Your task to perform on an android device: Open Google Chrome and click the shortcut for Amazon.com Image 0: 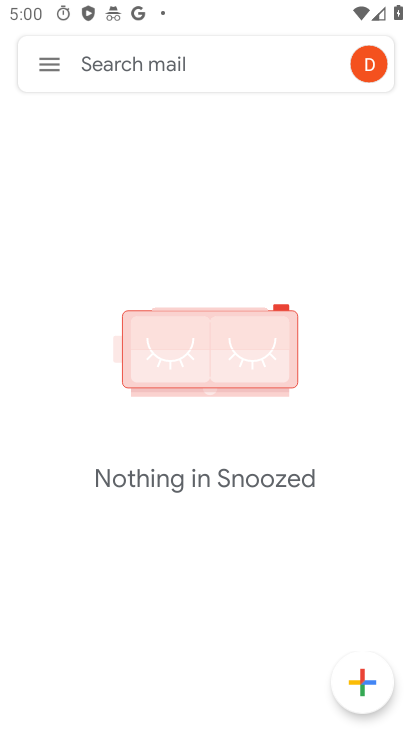
Step 0: press home button
Your task to perform on an android device: Open Google Chrome and click the shortcut for Amazon.com Image 1: 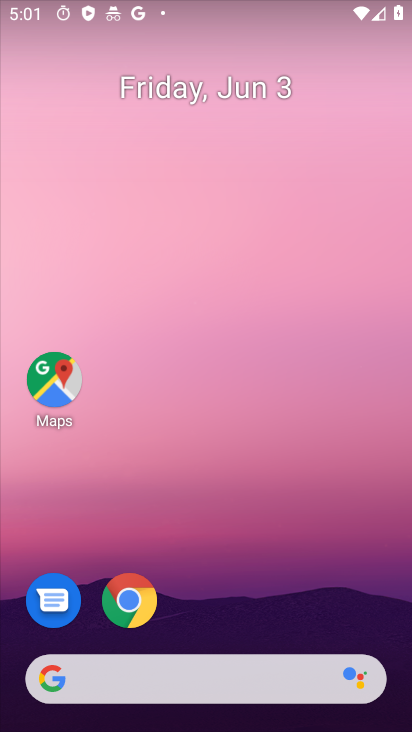
Step 1: click (130, 593)
Your task to perform on an android device: Open Google Chrome and click the shortcut for Amazon.com Image 2: 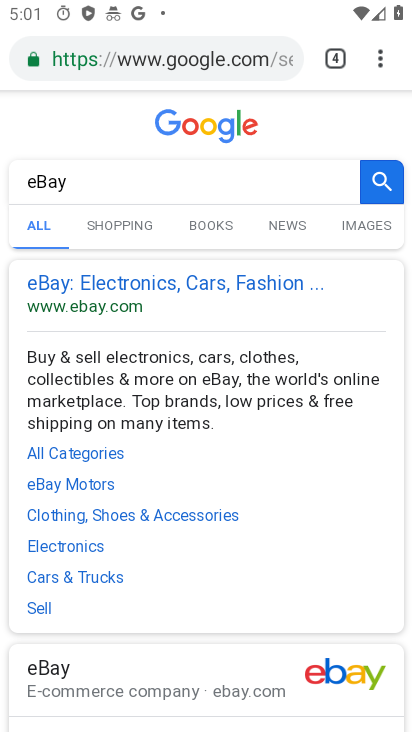
Step 2: click (380, 51)
Your task to perform on an android device: Open Google Chrome and click the shortcut for Amazon.com Image 3: 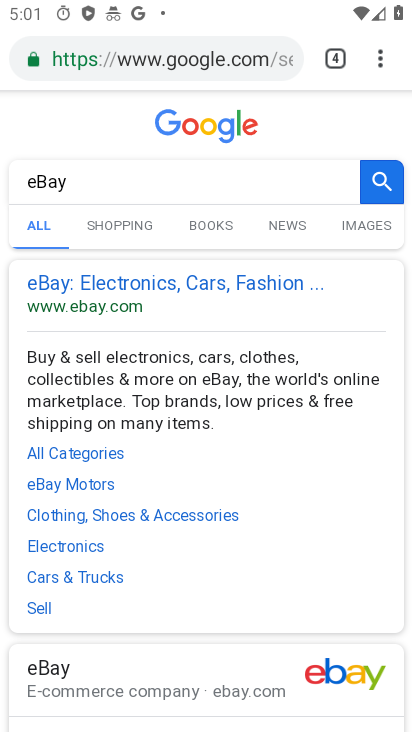
Step 3: click (379, 58)
Your task to perform on an android device: Open Google Chrome and click the shortcut for Amazon.com Image 4: 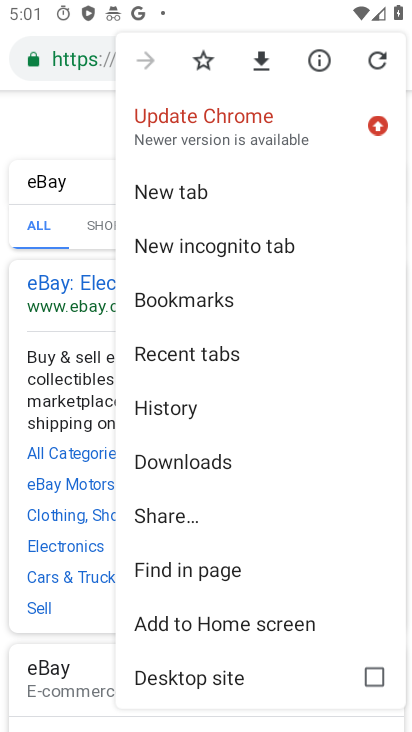
Step 4: click (177, 186)
Your task to perform on an android device: Open Google Chrome and click the shortcut for Amazon.com Image 5: 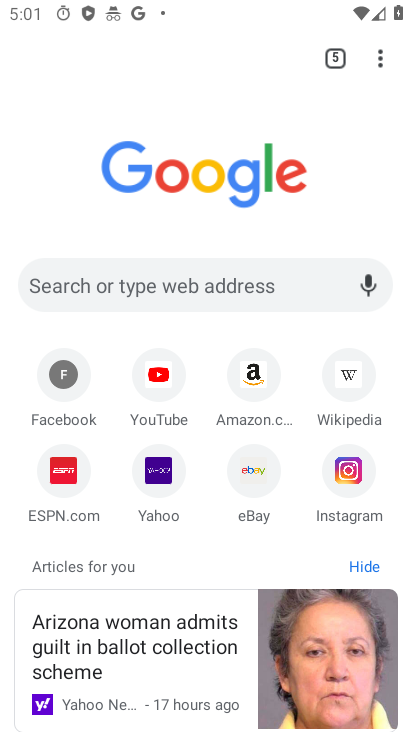
Step 5: click (264, 381)
Your task to perform on an android device: Open Google Chrome and click the shortcut for Amazon.com Image 6: 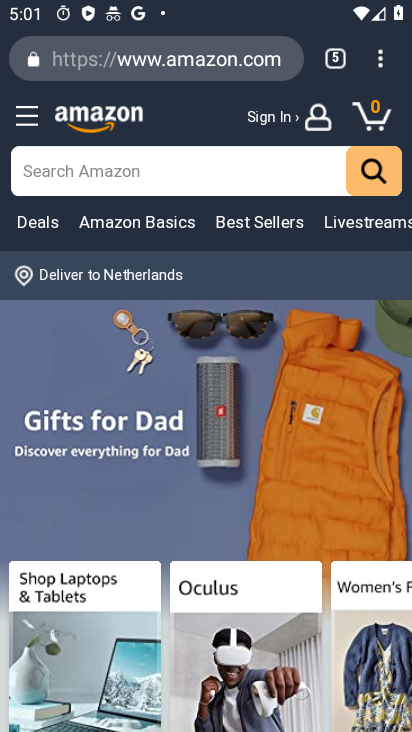
Step 6: task complete